Your task to perform on an android device: Go to Wikipedia Image 0: 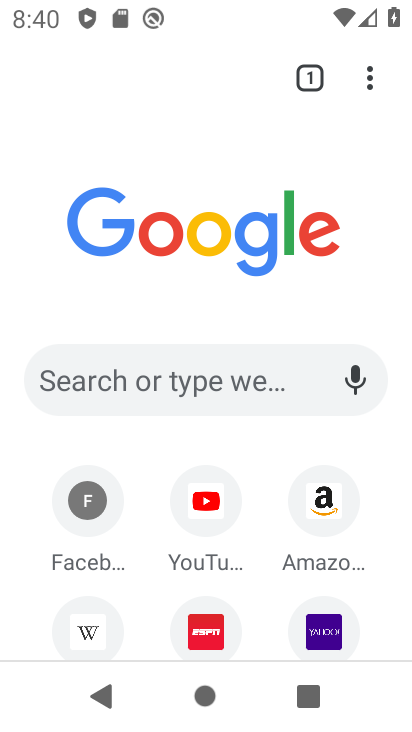
Step 0: click (85, 621)
Your task to perform on an android device: Go to Wikipedia Image 1: 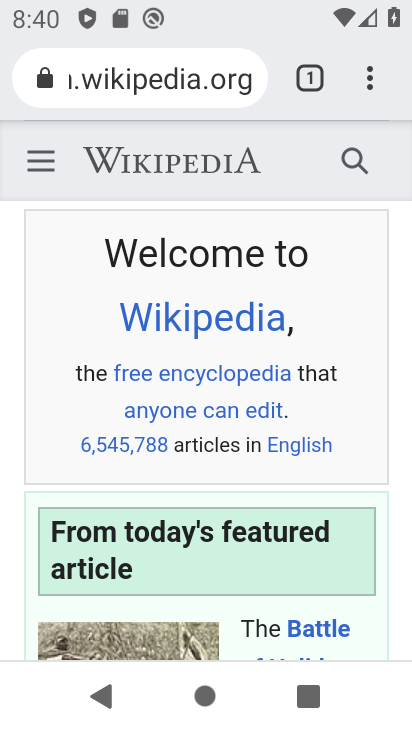
Step 1: task complete